Your task to perform on an android device: turn off notifications settings in the gmail app Image 0: 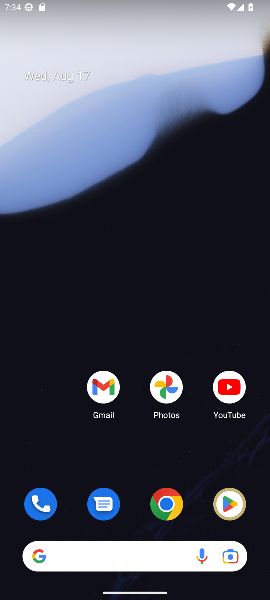
Step 0: drag from (151, 469) to (163, 217)
Your task to perform on an android device: turn off notifications settings in the gmail app Image 1: 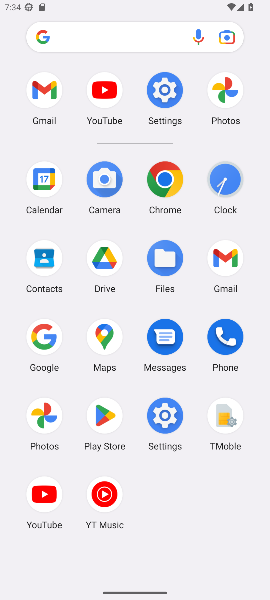
Step 1: click (234, 262)
Your task to perform on an android device: turn off notifications settings in the gmail app Image 2: 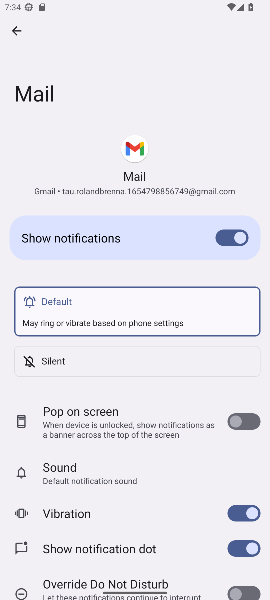
Step 2: click (235, 243)
Your task to perform on an android device: turn off notifications settings in the gmail app Image 3: 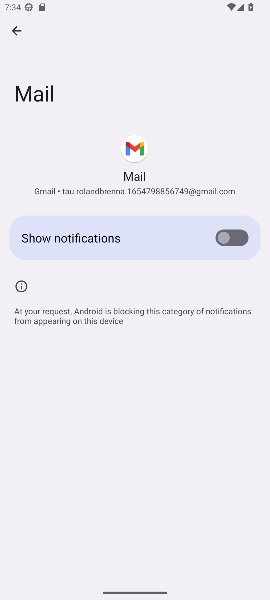
Step 3: task complete